Your task to perform on an android device: What's the weather today? Image 0: 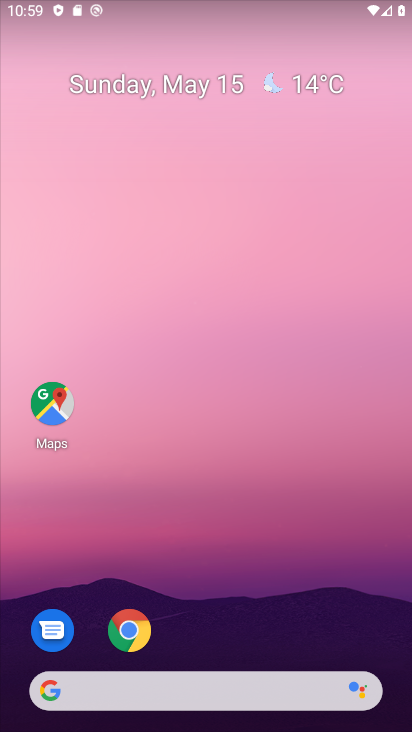
Step 0: click (200, 696)
Your task to perform on an android device: What's the weather today? Image 1: 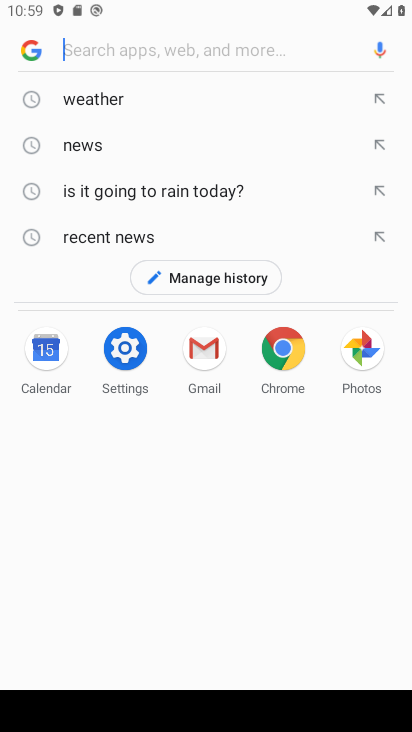
Step 1: click (130, 90)
Your task to perform on an android device: What's the weather today? Image 2: 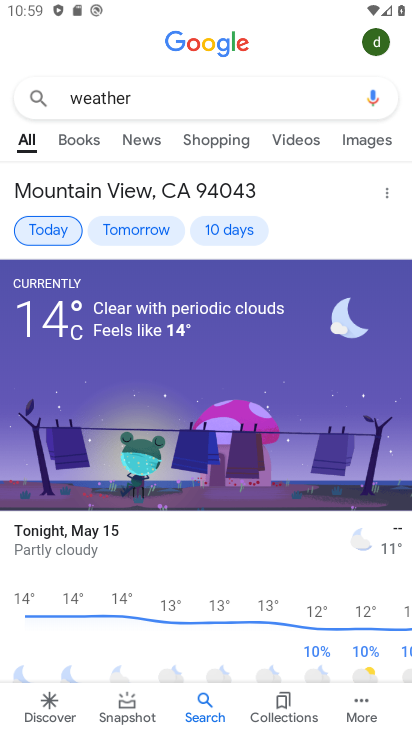
Step 2: task complete